Your task to perform on an android device: Open maps Image 0: 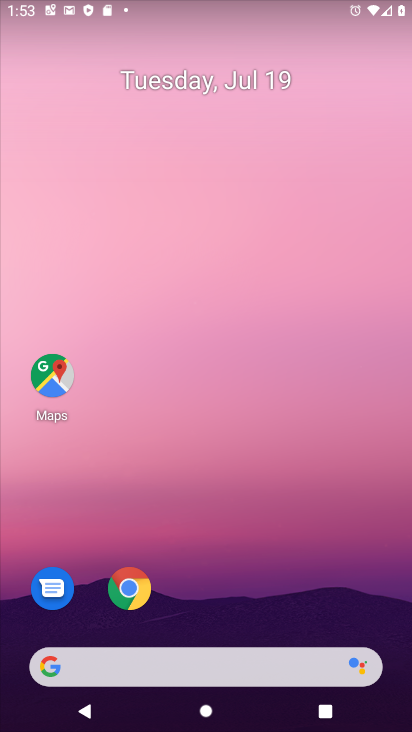
Step 0: drag from (386, 645) to (194, 29)
Your task to perform on an android device: Open maps Image 1: 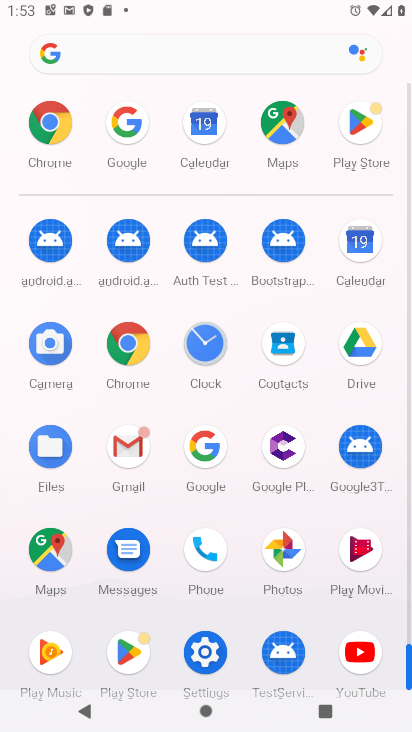
Step 1: click (49, 546)
Your task to perform on an android device: Open maps Image 2: 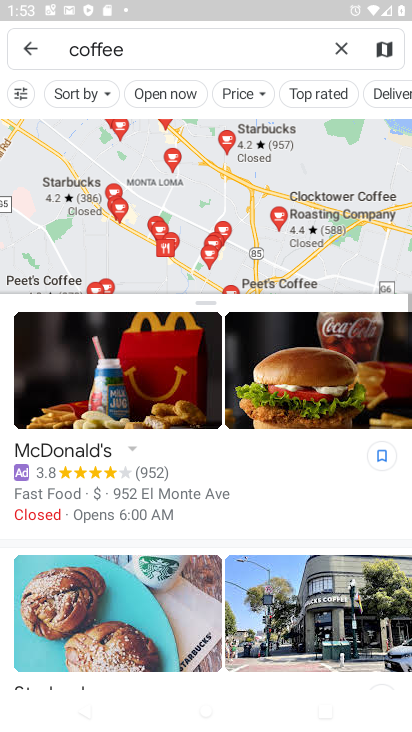
Step 2: click (342, 50)
Your task to perform on an android device: Open maps Image 3: 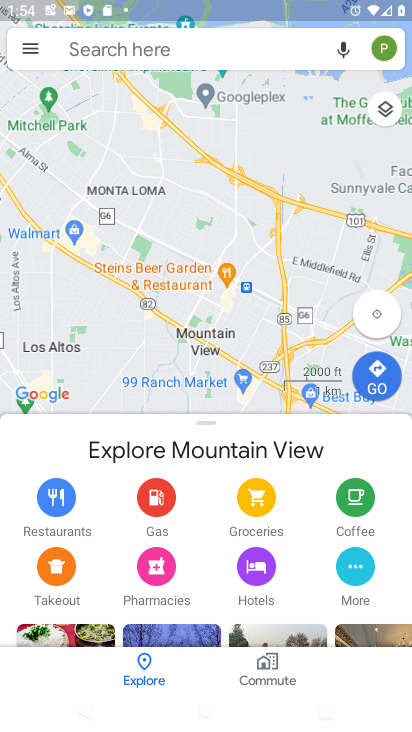
Step 3: task complete